Your task to perform on an android device: Open battery settings Image 0: 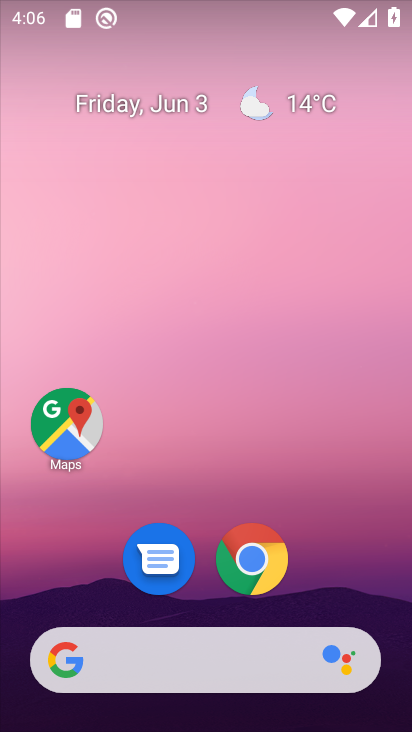
Step 0: click (187, 162)
Your task to perform on an android device: Open battery settings Image 1: 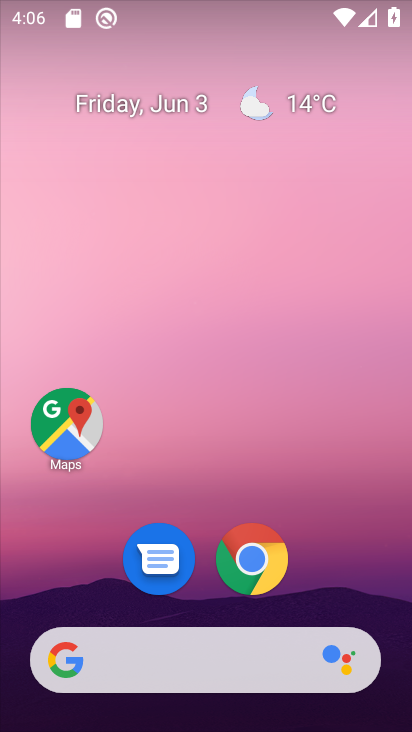
Step 1: drag from (202, 616) to (141, 30)
Your task to perform on an android device: Open battery settings Image 2: 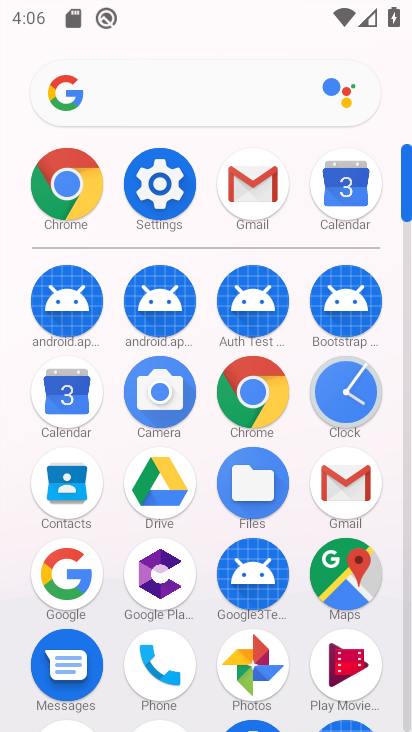
Step 2: click (71, 493)
Your task to perform on an android device: Open battery settings Image 3: 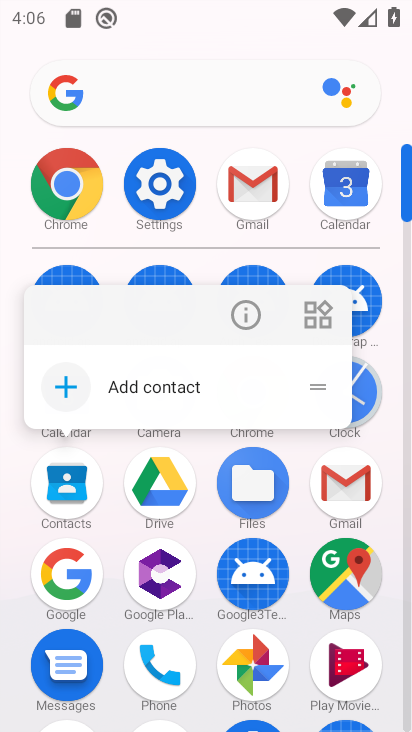
Step 3: click (69, 487)
Your task to perform on an android device: Open battery settings Image 4: 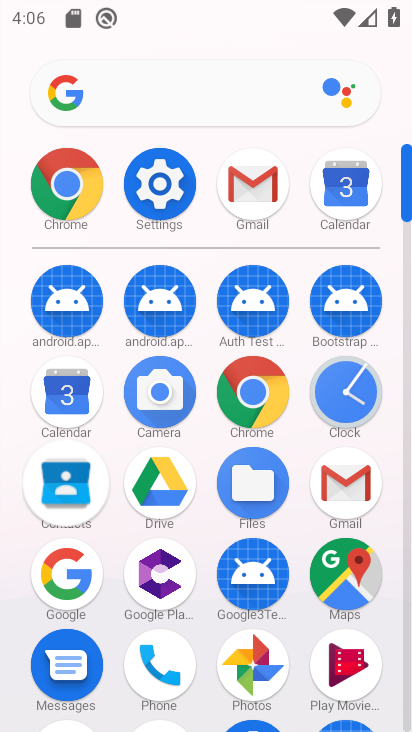
Step 4: click (67, 488)
Your task to perform on an android device: Open battery settings Image 5: 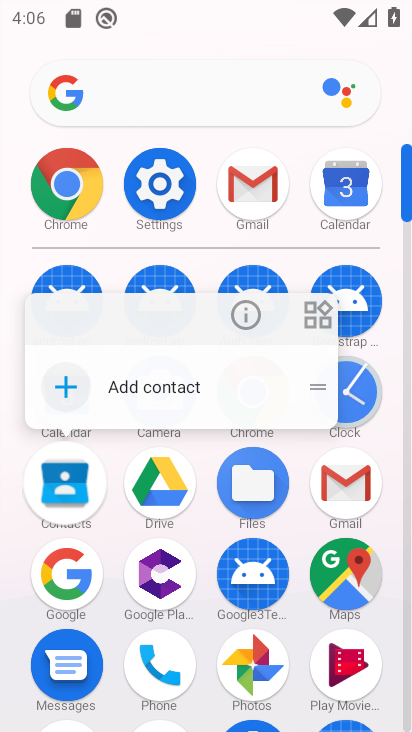
Step 5: click (71, 488)
Your task to perform on an android device: Open battery settings Image 6: 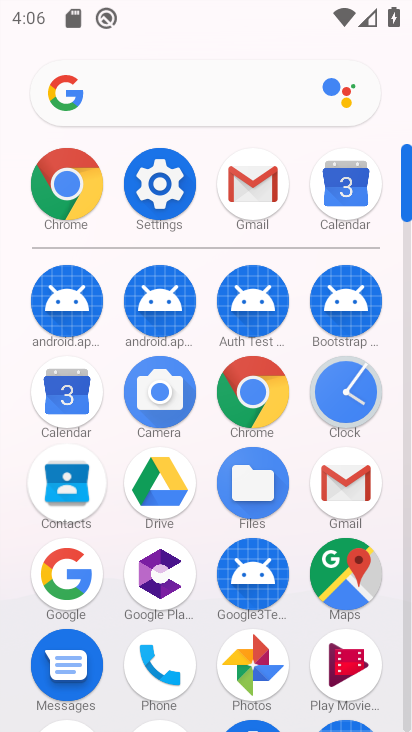
Step 6: click (71, 488)
Your task to perform on an android device: Open battery settings Image 7: 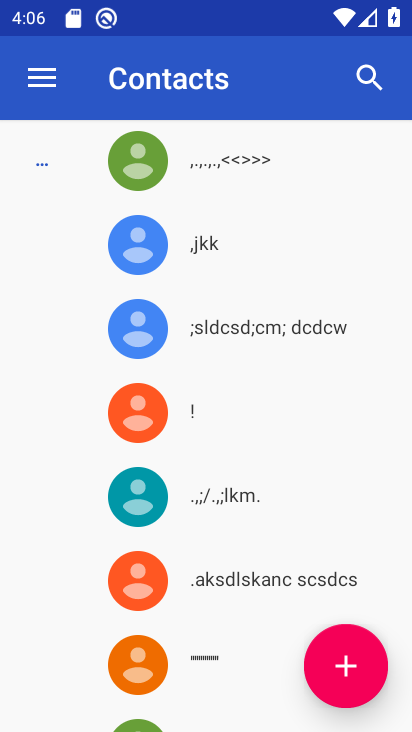
Step 7: press back button
Your task to perform on an android device: Open battery settings Image 8: 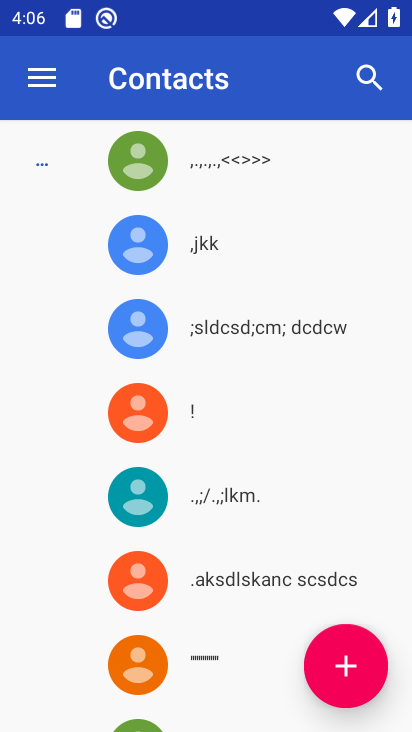
Step 8: press back button
Your task to perform on an android device: Open battery settings Image 9: 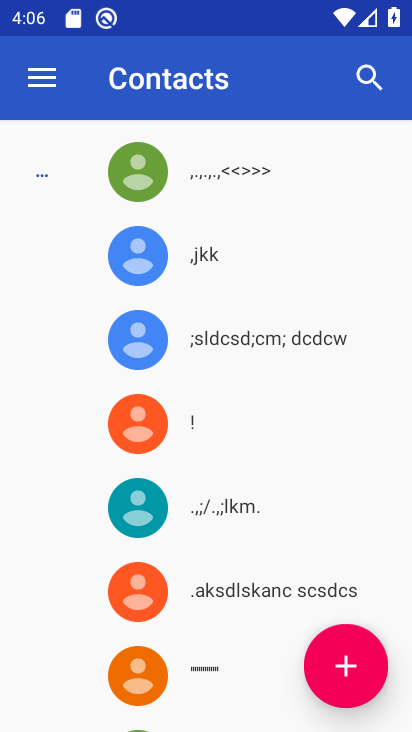
Step 9: press home button
Your task to perform on an android device: Open battery settings Image 10: 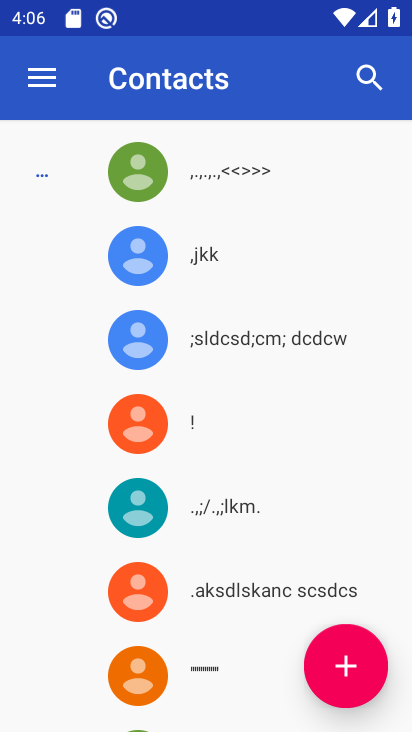
Step 10: press home button
Your task to perform on an android device: Open battery settings Image 11: 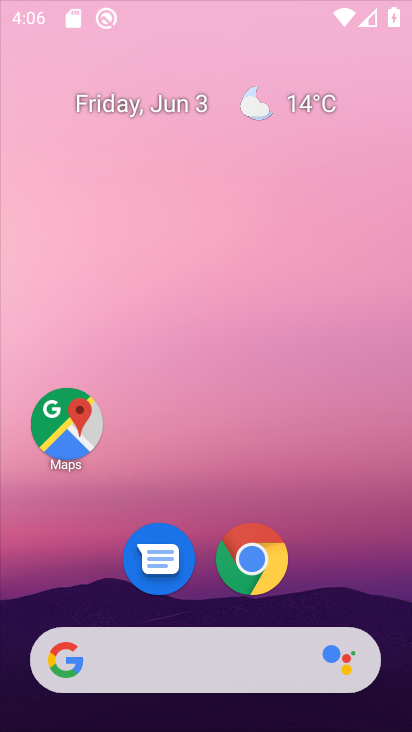
Step 11: press home button
Your task to perform on an android device: Open battery settings Image 12: 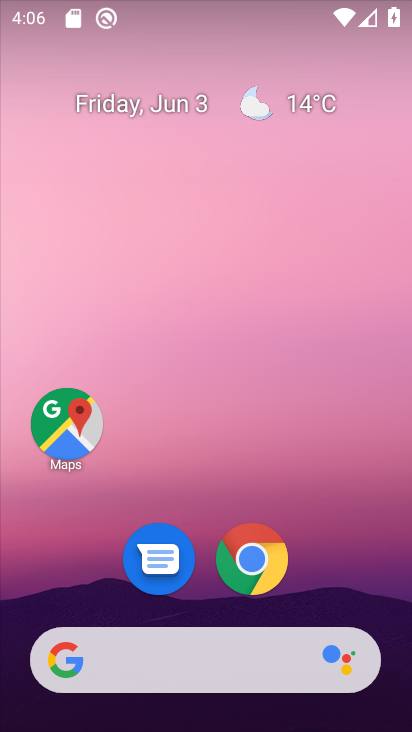
Step 12: press home button
Your task to perform on an android device: Open battery settings Image 13: 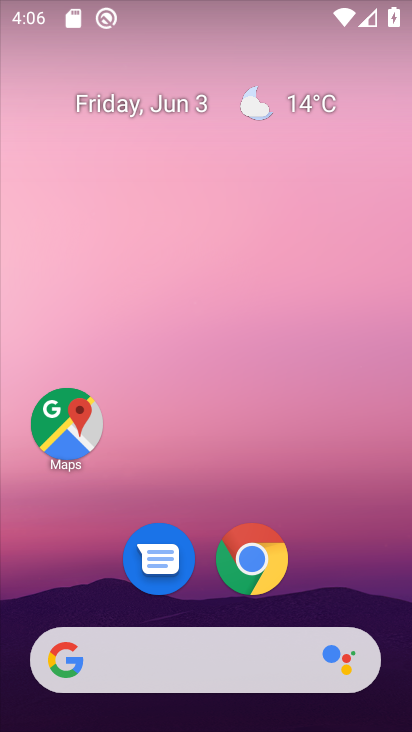
Step 13: drag from (229, 691) to (77, 47)
Your task to perform on an android device: Open battery settings Image 14: 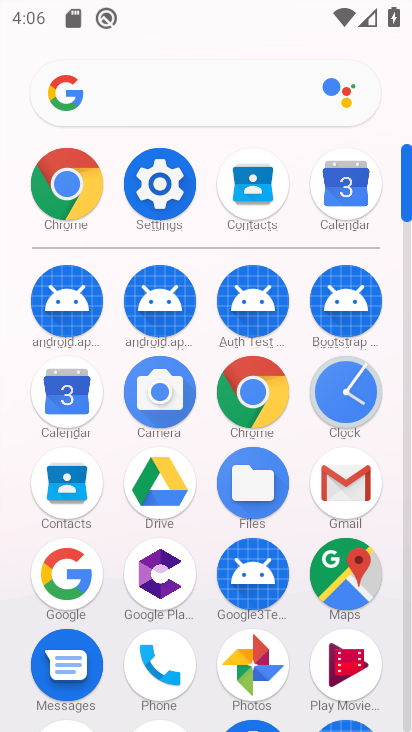
Step 14: click (157, 196)
Your task to perform on an android device: Open battery settings Image 15: 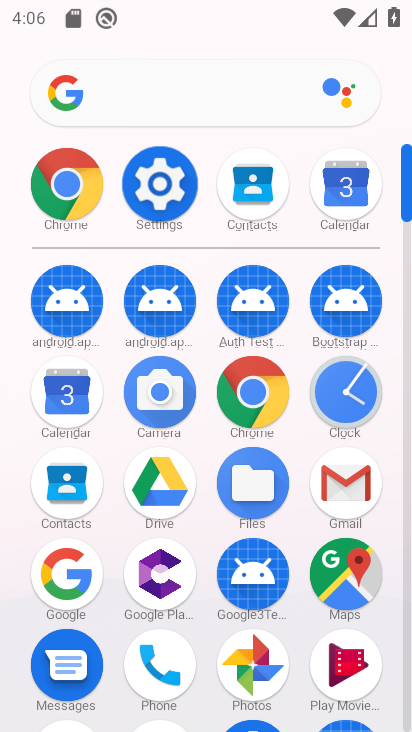
Step 15: click (156, 196)
Your task to perform on an android device: Open battery settings Image 16: 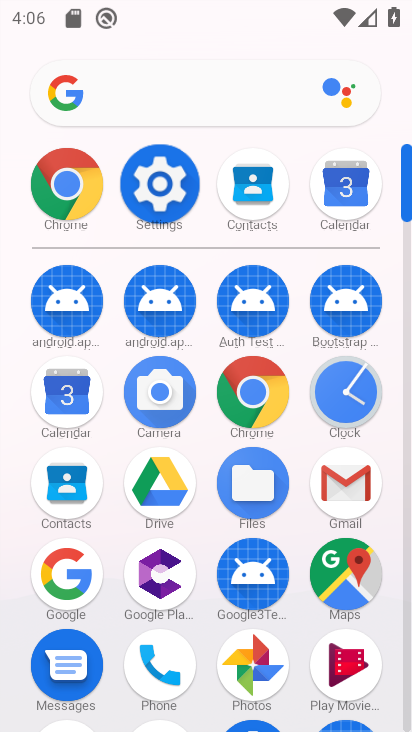
Step 16: click (156, 194)
Your task to perform on an android device: Open battery settings Image 17: 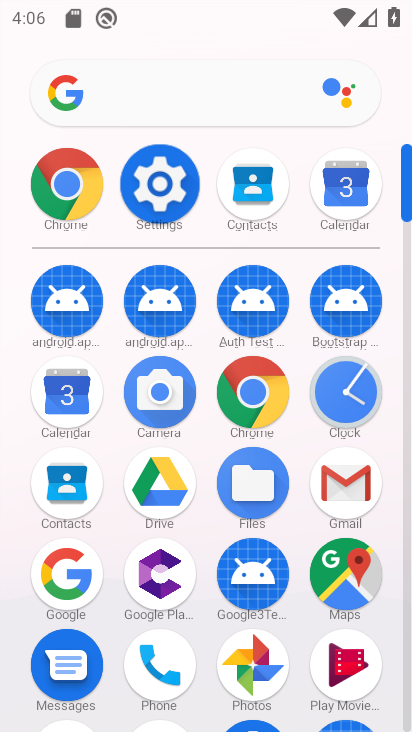
Step 17: click (161, 188)
Your task to perform on an android device: Open battery settings Image 18: 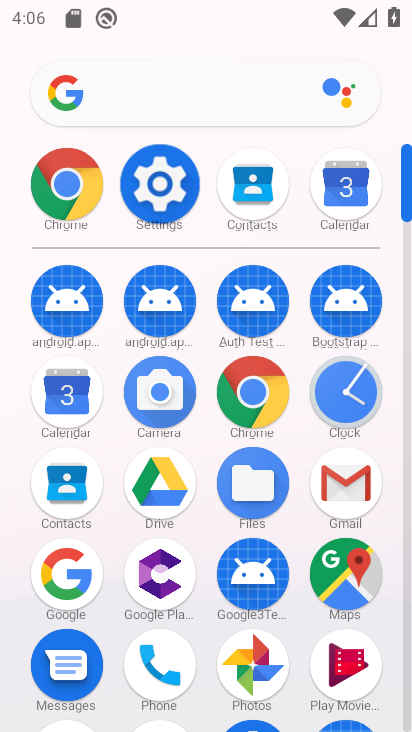
Step 18: click (159, 186)
Your task to perform on an android device: Open battery settings Image 19: 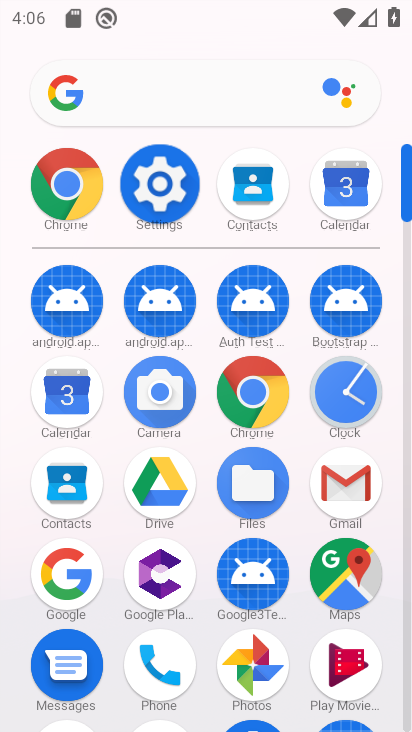
Step 19: click (159, 175)
Your task to perform on an android device: Open battery settings Image 20: 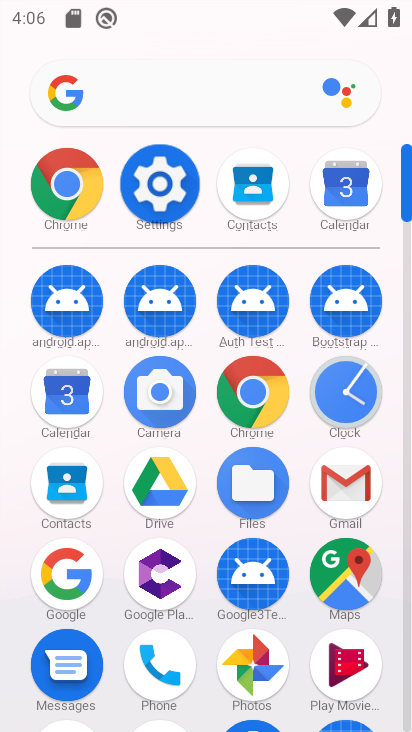
Step 20: click (159, 175)
Your task to perform on an android device: Open battery settings Image 21: 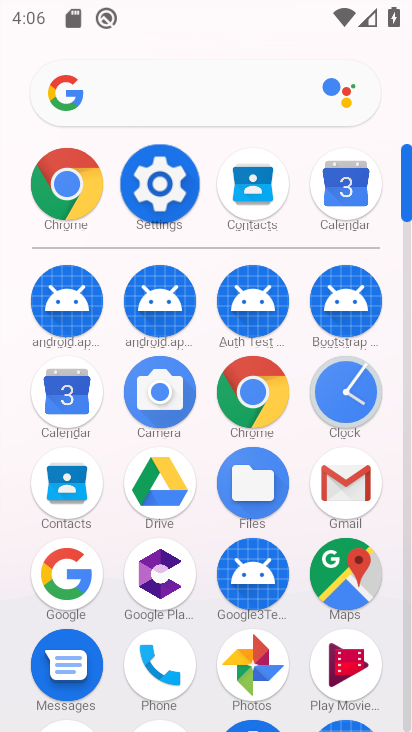
Step 21: click (162, 198)
Your task to perform on an android device: Open battery settings Image 22: 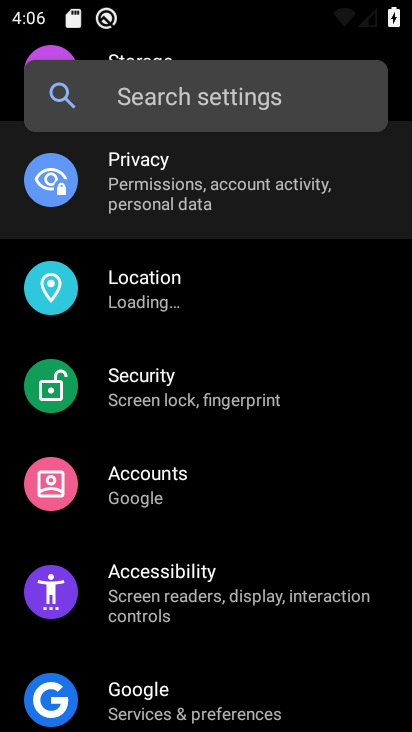
Step 22: click (163, 180)
Your task to perform on an android device: Open battery settings Image 23: 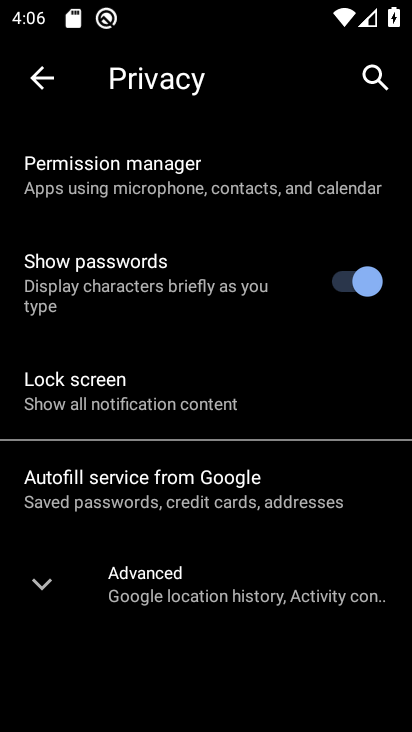
Step 23: click (38, 91)
Your task to perform on an android device: Open battery settings Image 24: 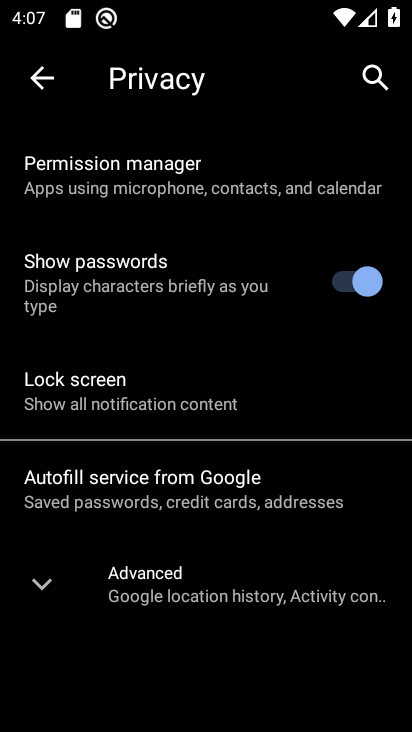
Step 24: click (28, 77)
Your task to perform on an android device: Open battery settings Image 25: 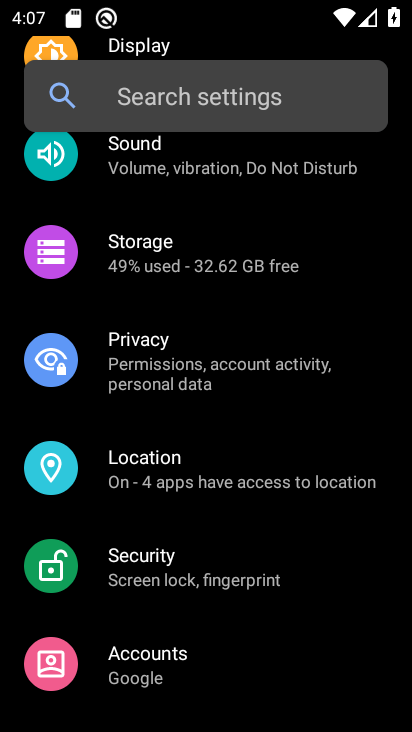
Step 25: drag from (205, 370) to (302, 730)
Your task to perform on an android device: Open battery settings Image 26: 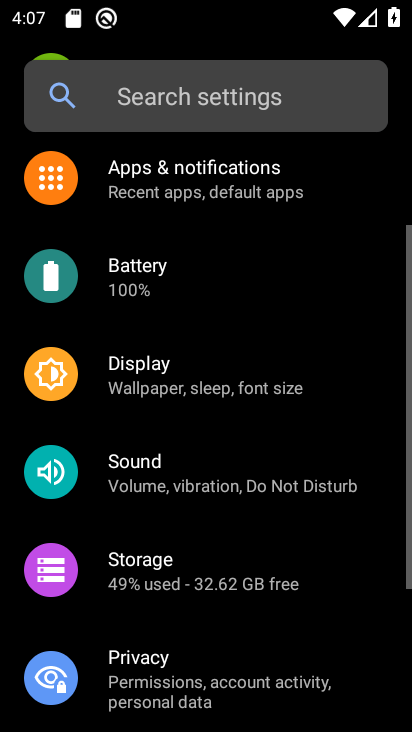
Step 26: drag from (179, 271) to (172, 463)
Your task to perform on an android device: Open battery settings Image 27: 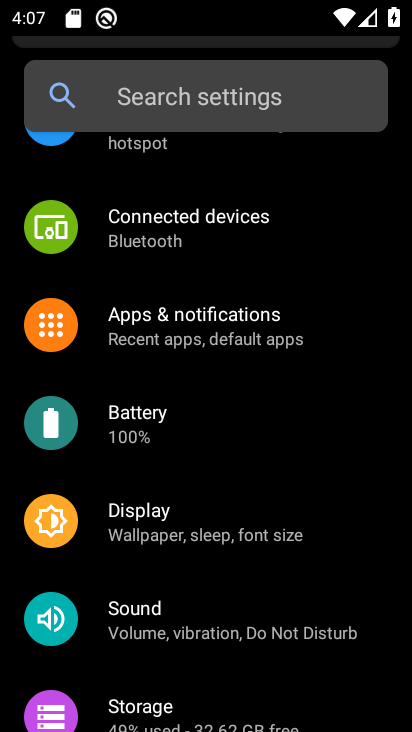
Step 27: click (142, 428)
Your task to perform on an android device: Open battery settings Image 28: 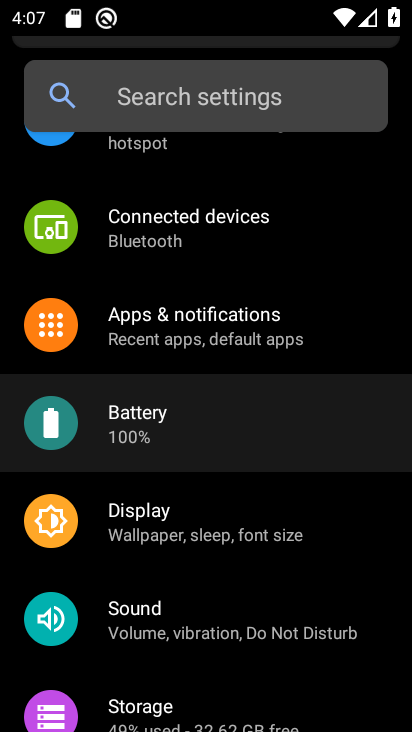
Step 28: click (142, 428)
Your task to perform on an android device: Open battery settings Image 29: 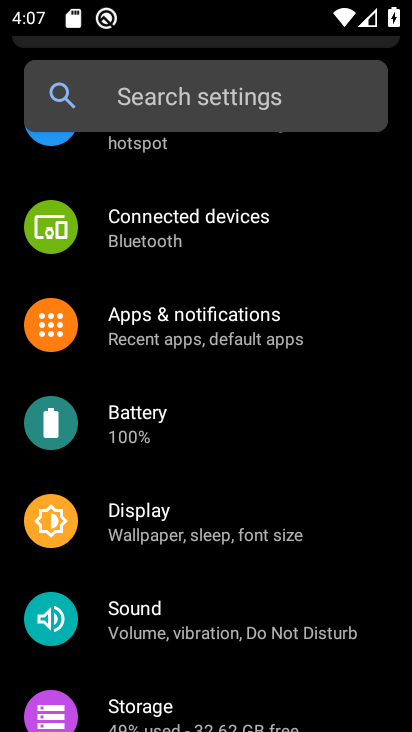
Step 29: click (142, 428)
Your task to perform on an android device: Open battery settings Image 30: 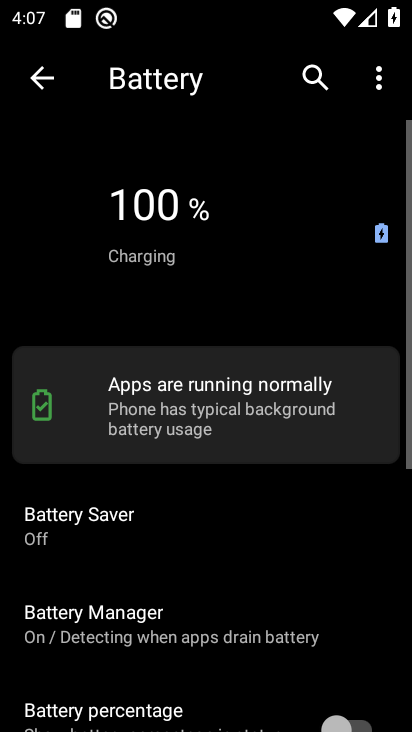
Step 30: click (142, 428)
Your task to perform on an android device: Open battery settings Image 31: 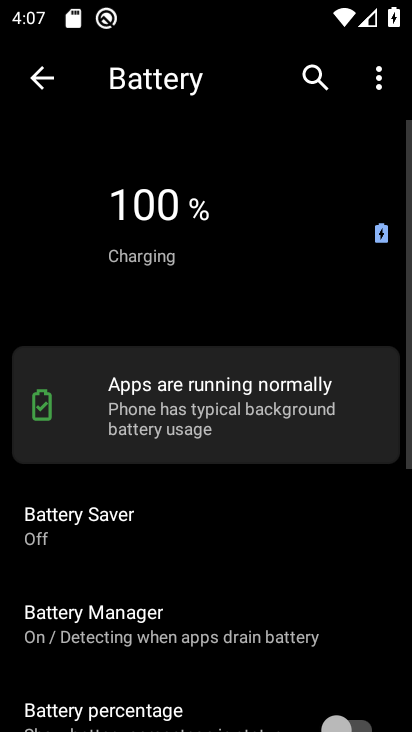
Step 31: task complete